Your task to perform on an android device: see creations saved in the google photos Image 0: 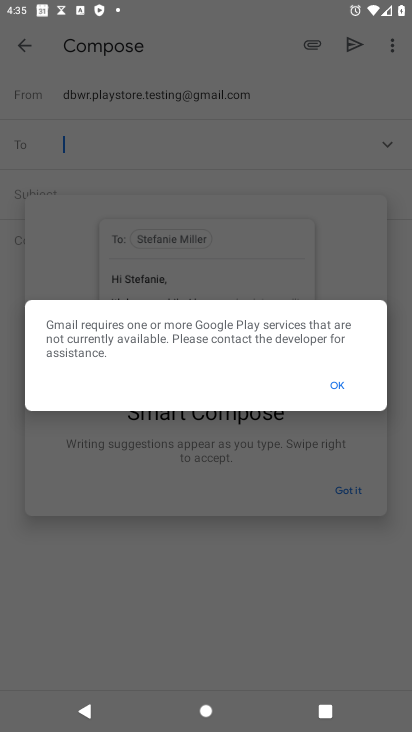
Step 0: press home button
Your task to perform on an android device: see creations saved in the google photos Image 1: 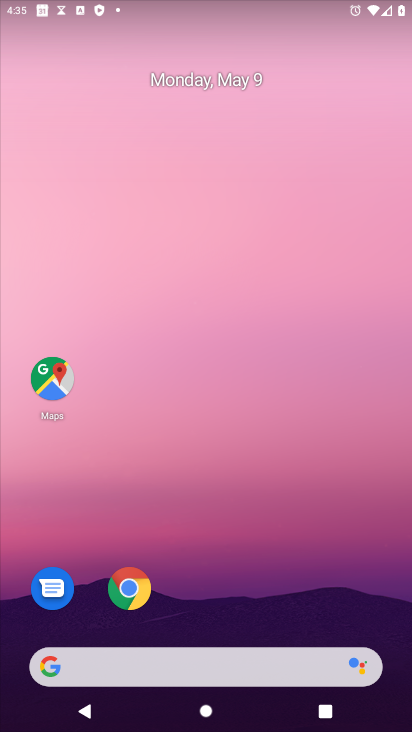
Step 1: drag from (262, 475) to (235, 104)
Your task to perform on an android device: see creations saved in the google photos Image 2: 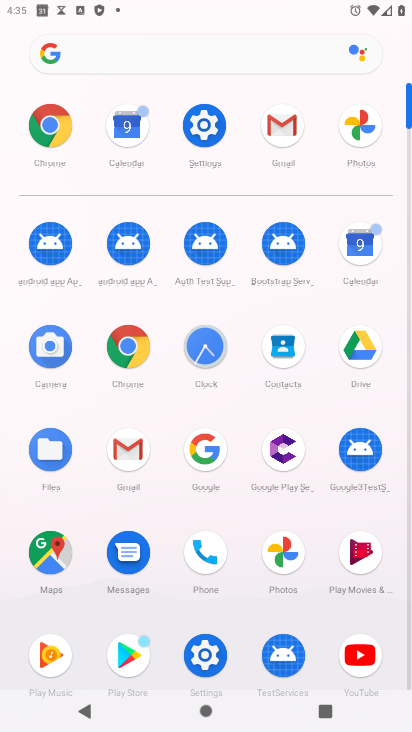
Step 2: click (273, 551)
Your task to perform on an android device: see creations saved in the google photos Image 3: 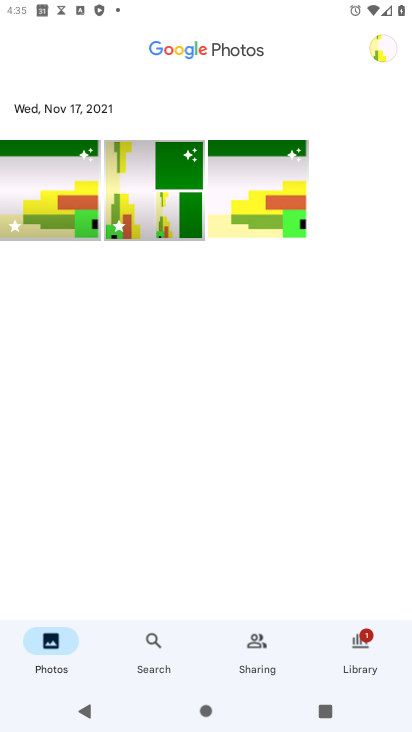
Step 3: click (169, 52)
Your task to perform on an android device: see creations saved in the google photos Image 4: 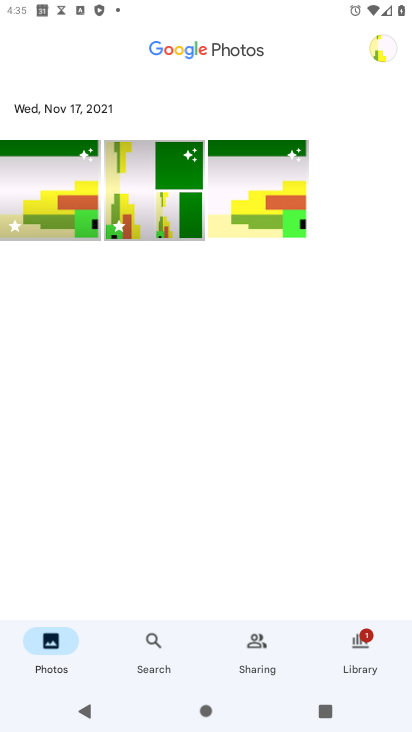
Step 4: click (152, 654)
Your task to perform on an android device: see creations saved in the google photos Image 5: 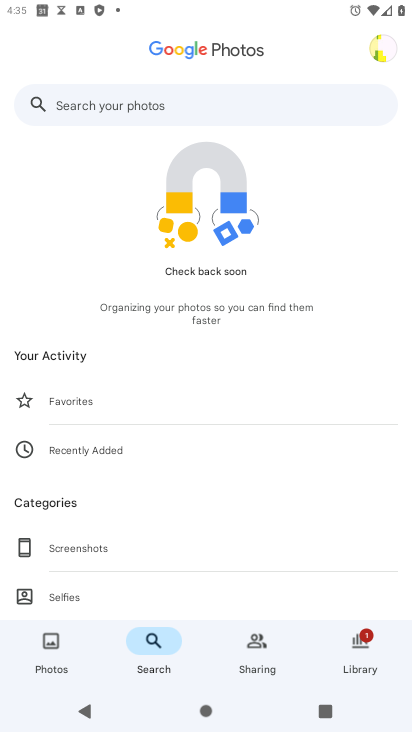
Step 5: click (166, 104)
Your task to perform on an android device: see creations saved in the google photos Image 6: 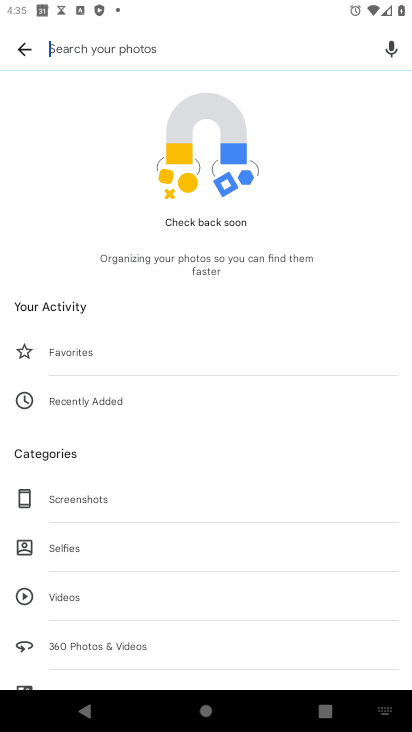
Step 6: type "creations"
Your task to perform on an android device: see creations saved in the google photos Image 7: 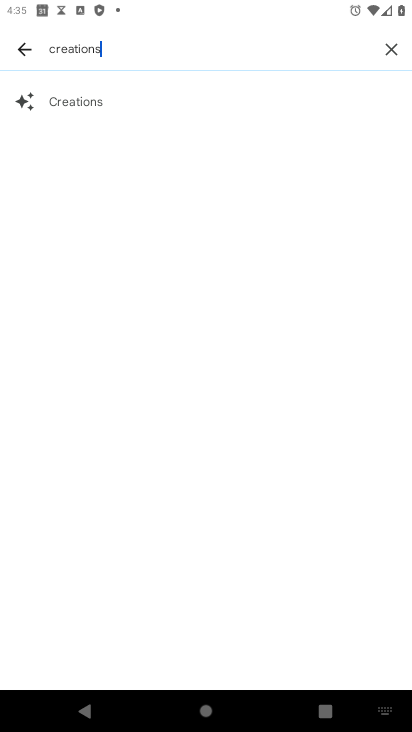
Step 7: click (91, 107)
Your task to perform on an android device: see creations saved in the google photos Image 8: 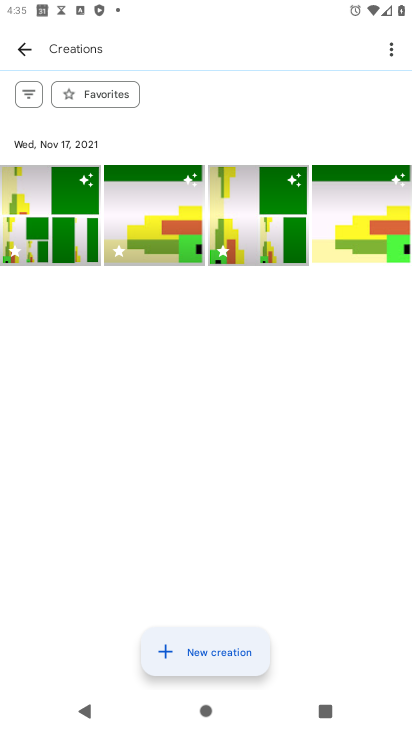
Step 8: task complete